Your task to perform on an android device: Search for seafood restaurants on Google Maps Image 0: 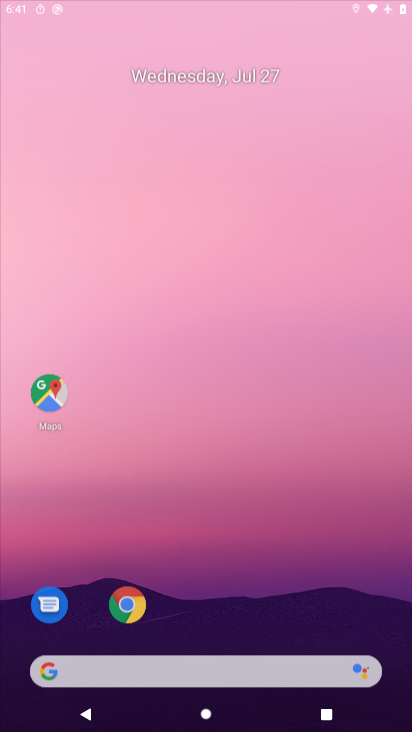
Step 0: press home button
Your task to perform on an android device: Search for seafood restaurants on Google Maps Image 1: 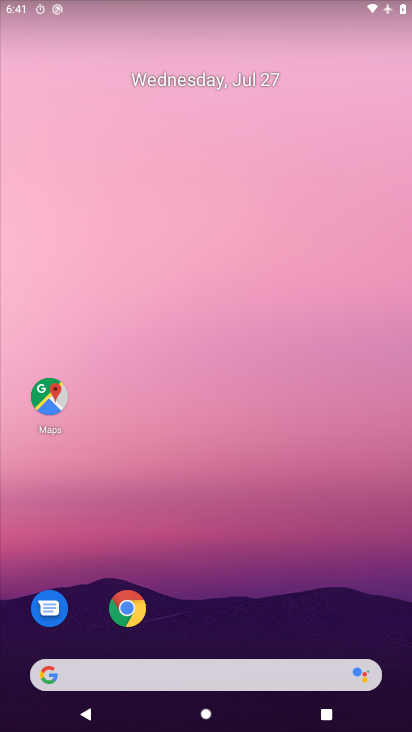
Step 1: click (23, 448)
Your task to perform on an android device: Search for seafood restaurants on Google Maps Image 2: 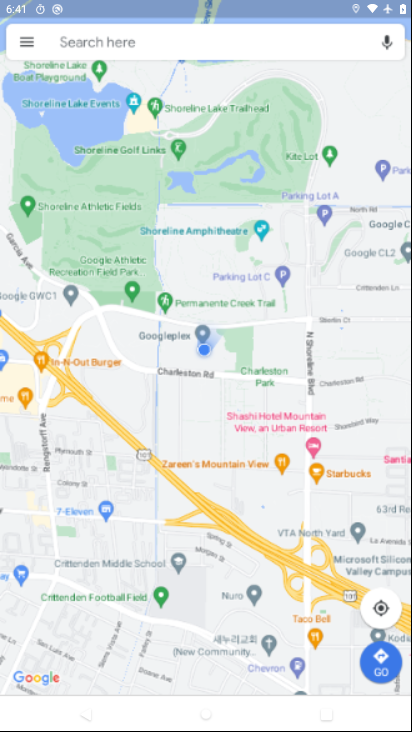
Step 2: click (38, 394)
Your task to perform on an android device: Search for seafood restaurants on Google Maps Image 3: 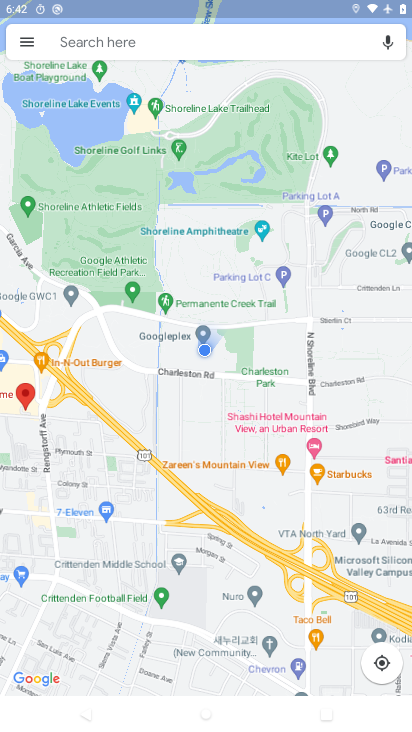
Step 3: click (128, 41)
Your task to perform on an android device: Search for seafood restaurants on Google Maps Image 4: 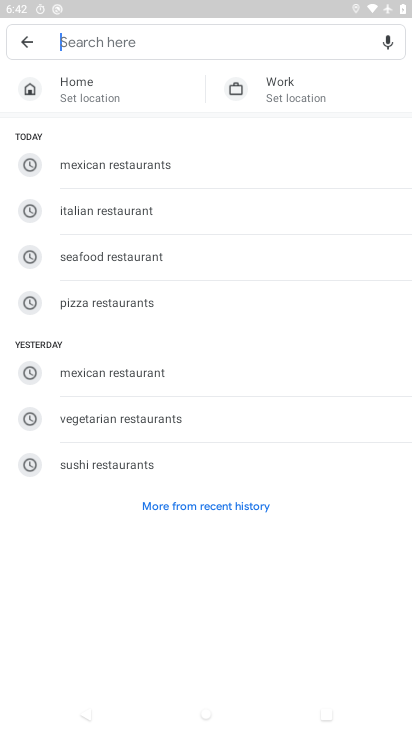
Step 4: click (132, 38)
Your task to perform on an android device: Search for seafood restaurants on Google Maps Image 5: 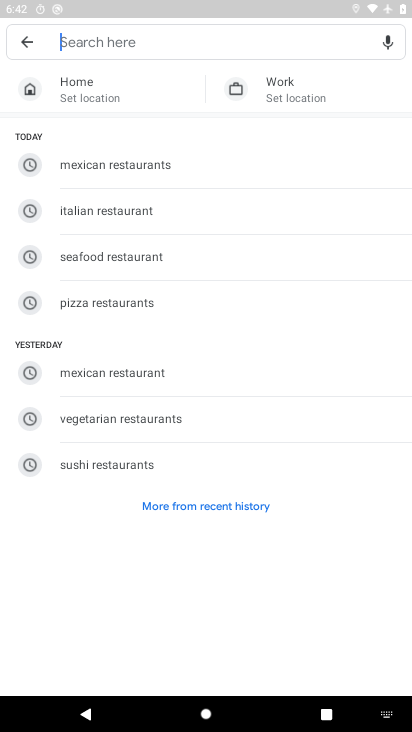
Step 5: click (129, 255)
Your task to perform on an android device: Search for seafood restaurants on Google Maps Image 6: 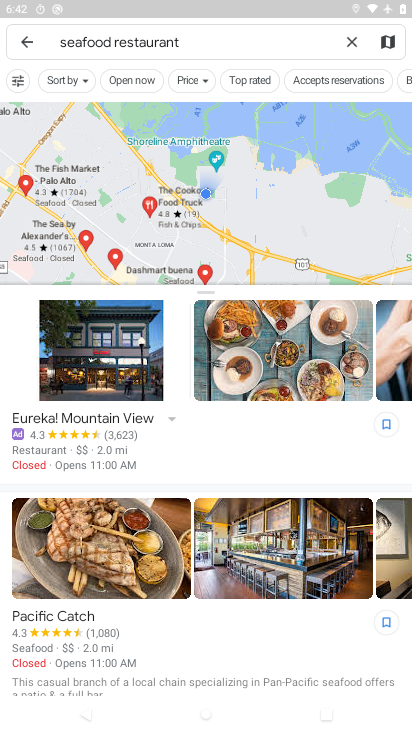
Step 6: task complete